Your task to perform on an android device: check android version Image 0: 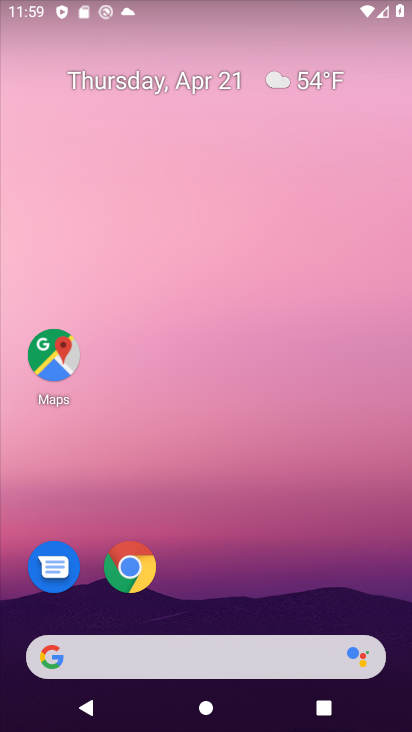
Step 0: drag from (279, 594) to (287, 131)
Your task to perform on an android device: check android version Image 1: 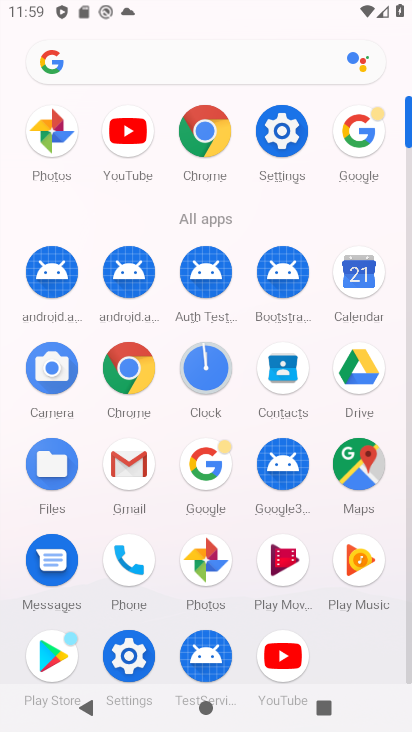
Step 1: click (286, 142)
Your task to perform on an android device: check android version Image 2: 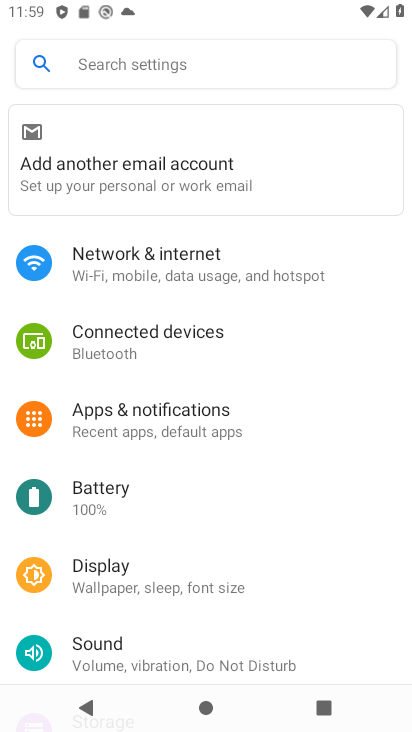
Step 2: drag from (214, 589) to (221, 354)
Your task to perform on an android device: check android version Image 3: 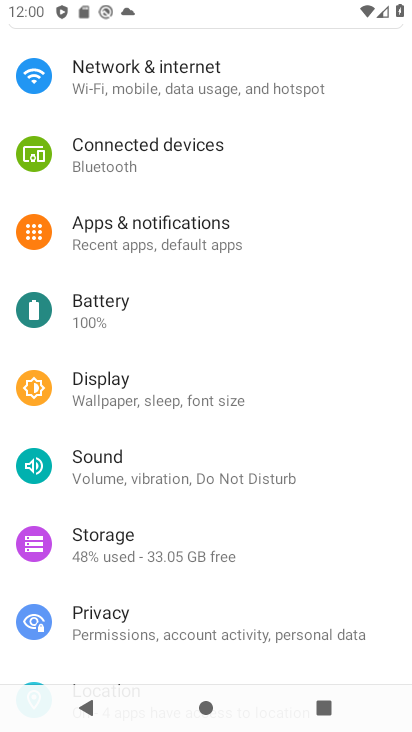
Step 3: drag from (239, 502) to (235, 144)
Your task to perform on an android device: check android version Image 4: 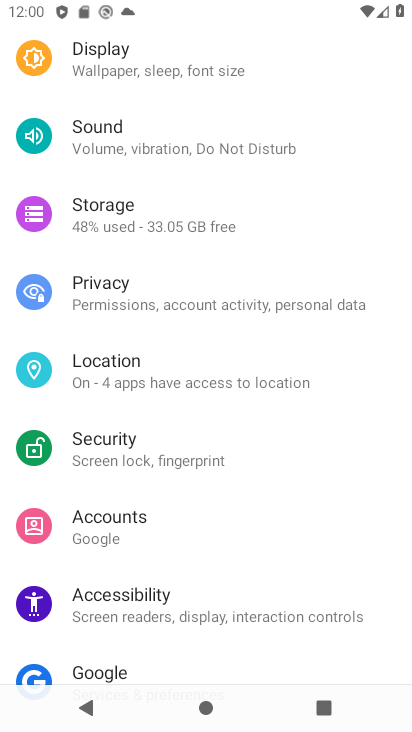
Step 4: drag from (274, 553) to (299, 100)
Your task to perform on an android device: check android version Image 5: 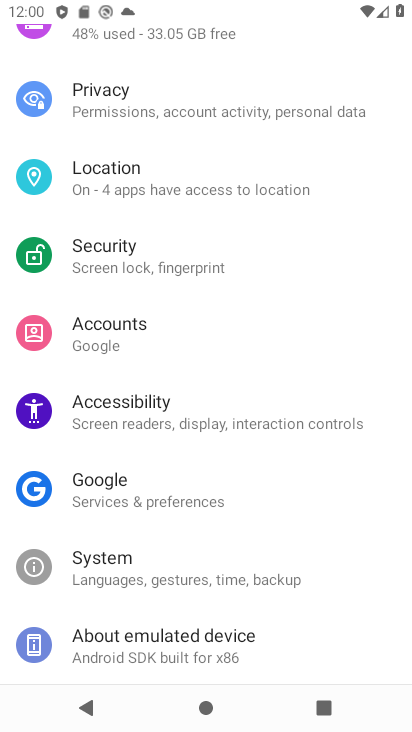
Step 5: click (282, 646)
Your task to perform on an android device: check android version Image 6: 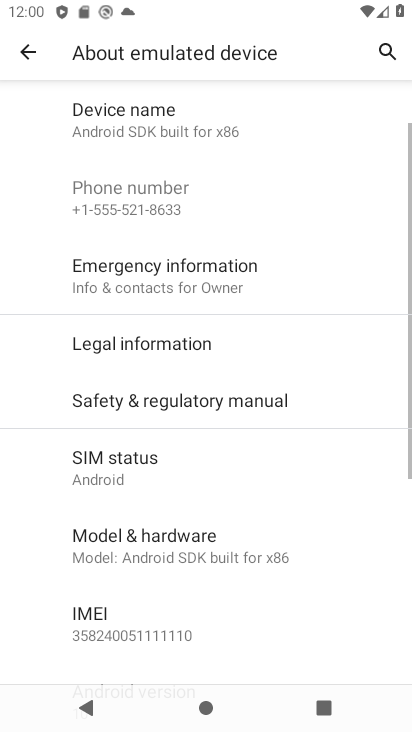
Step 6: drag from (218, 493) to (233, 251)
Your task to perform on an android device: check android version Image 7: 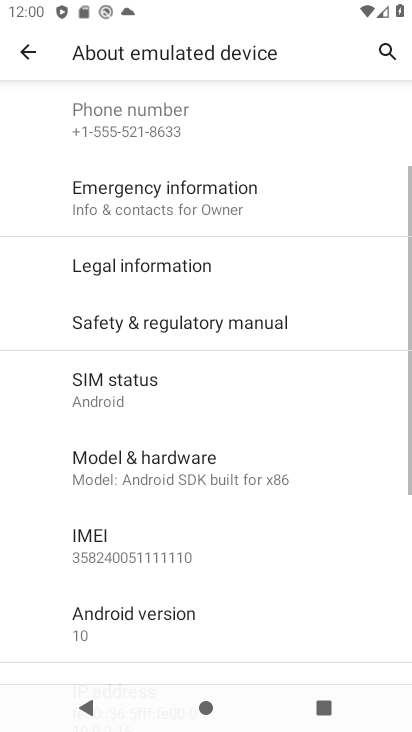
Step 7: click (196, 637)
Your task to perform on an android device: check android version Image 8: 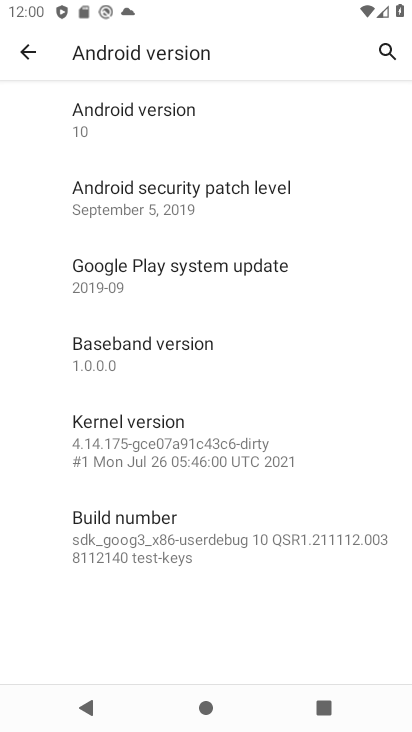
Step 8: task complete